Your task to perform on an android device: Clear all items from cart on newegg.com. Add "rayovac triple a" to the cart on newegg.com Image 0: 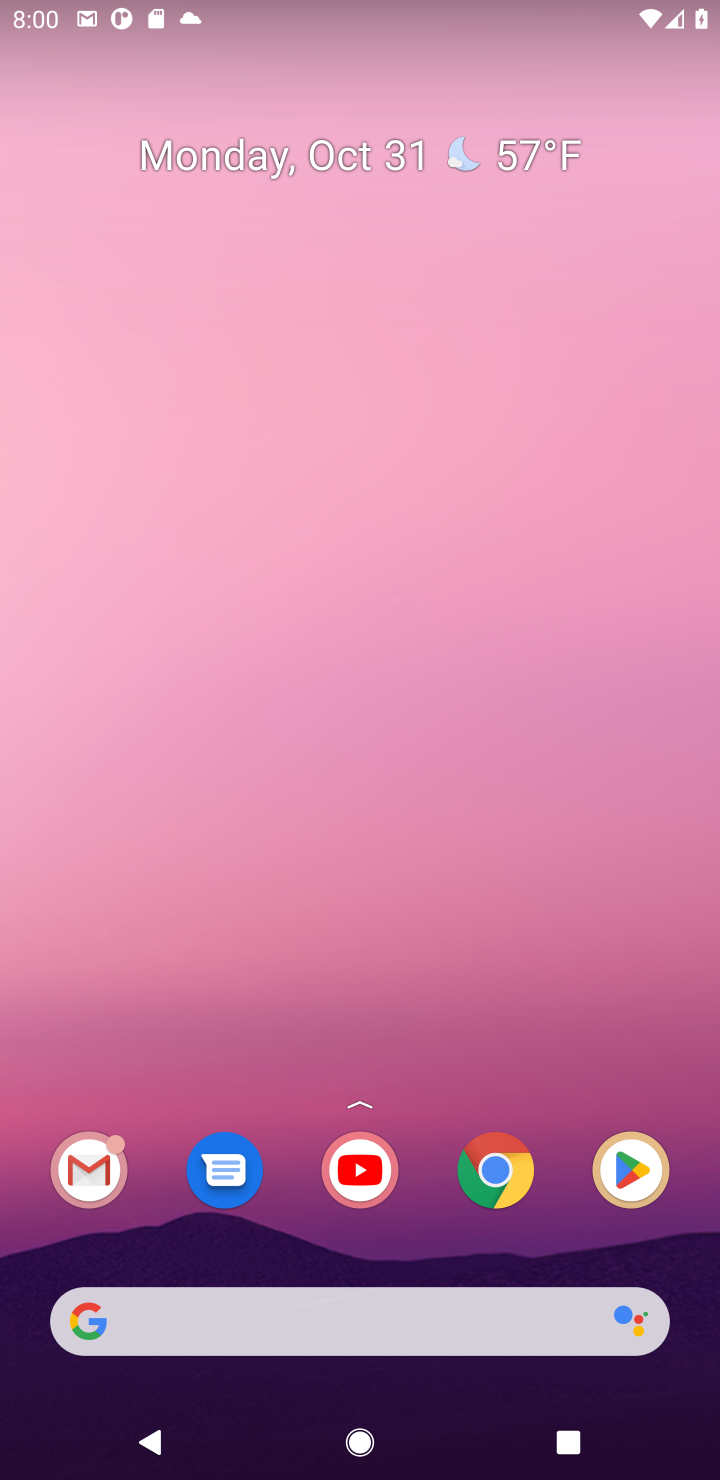
Step 0: click (518, 1166)
Your task to perform on an android device: Clear all items from cart on newegg.com. Add "rayovac triple a" to the cart on newegg.com Image 1: 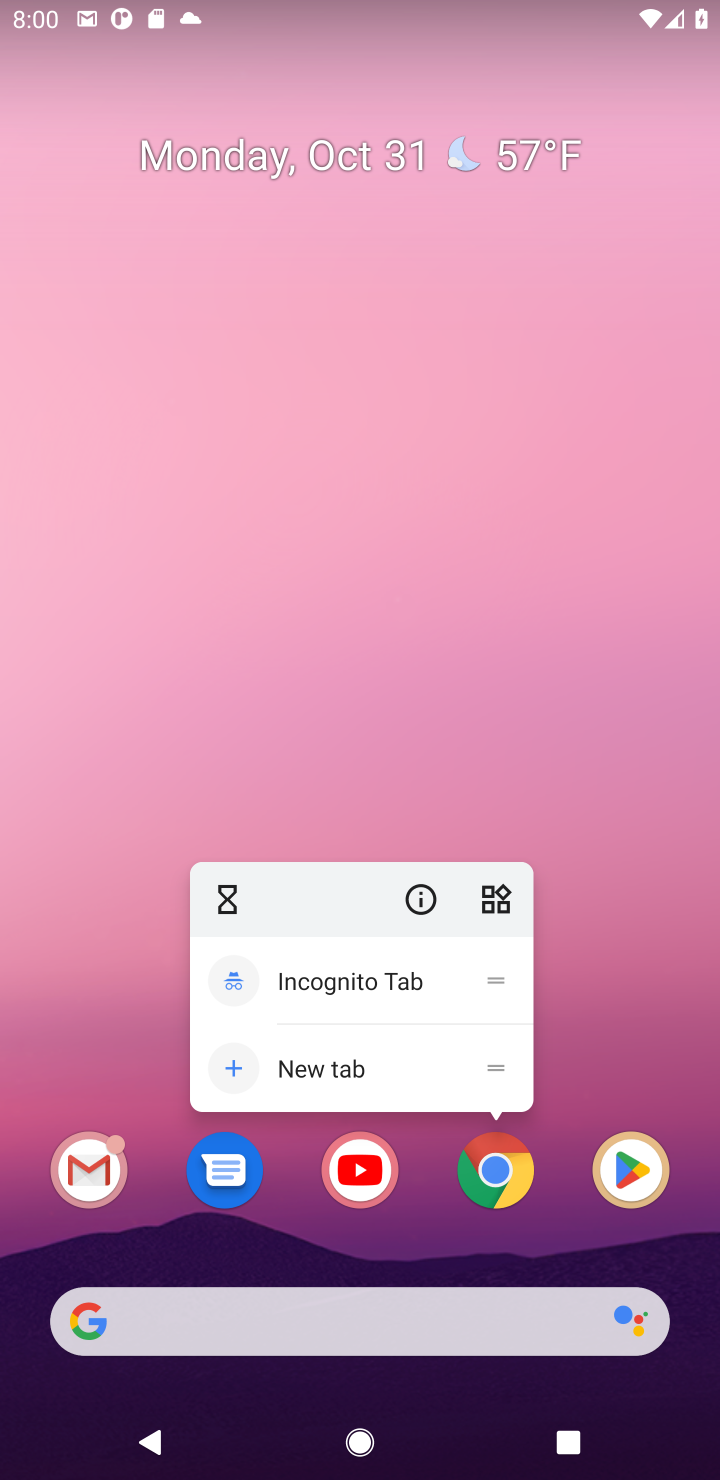
Step 1: click (496, 1176)
Your task to perform on an android device: Clear all items from cart on newegg.com. Add "rayovac triple a" to the cart on newegg.com Image 2: 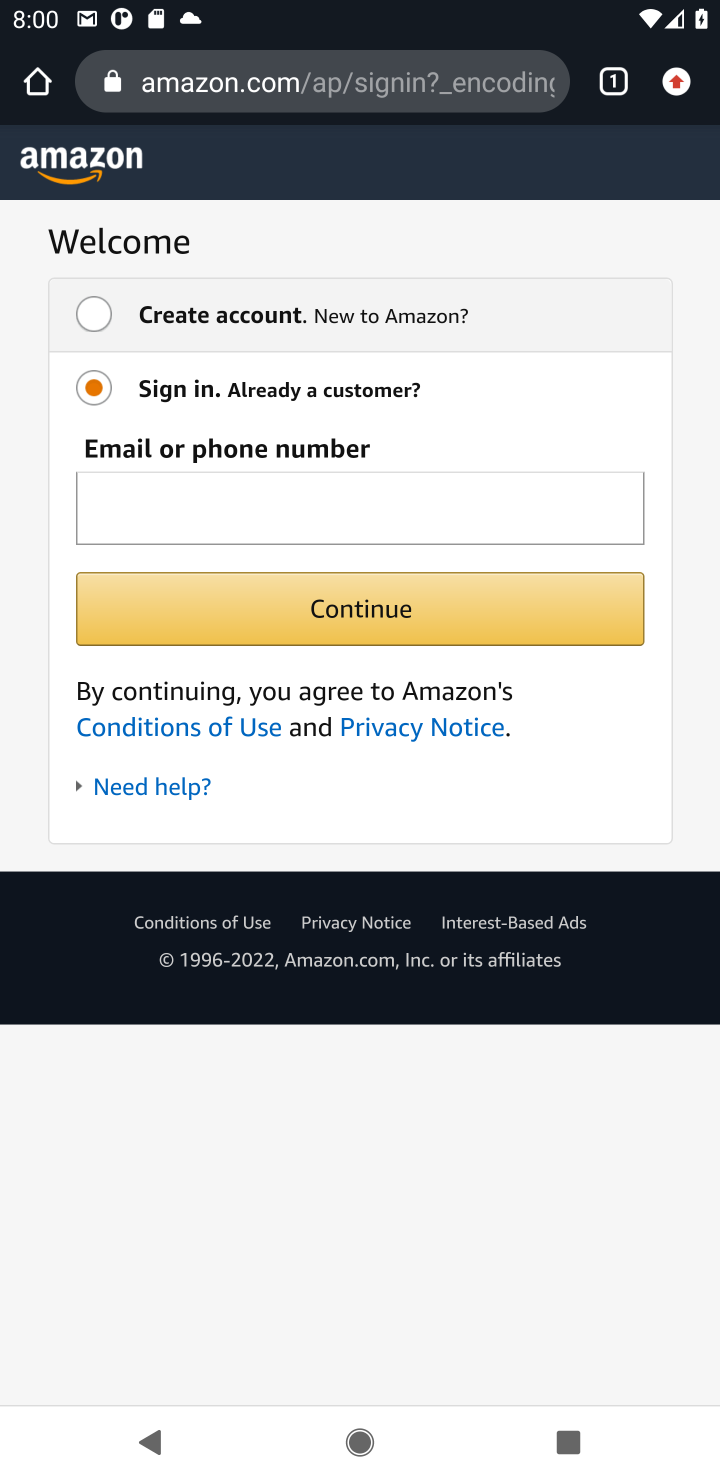
Step 2: click (322, 97)
Your task to perform on an android device: Clear all items from cart on newegg.com. Add "rayovac triple a" to the cart on newegg.com Image 3: 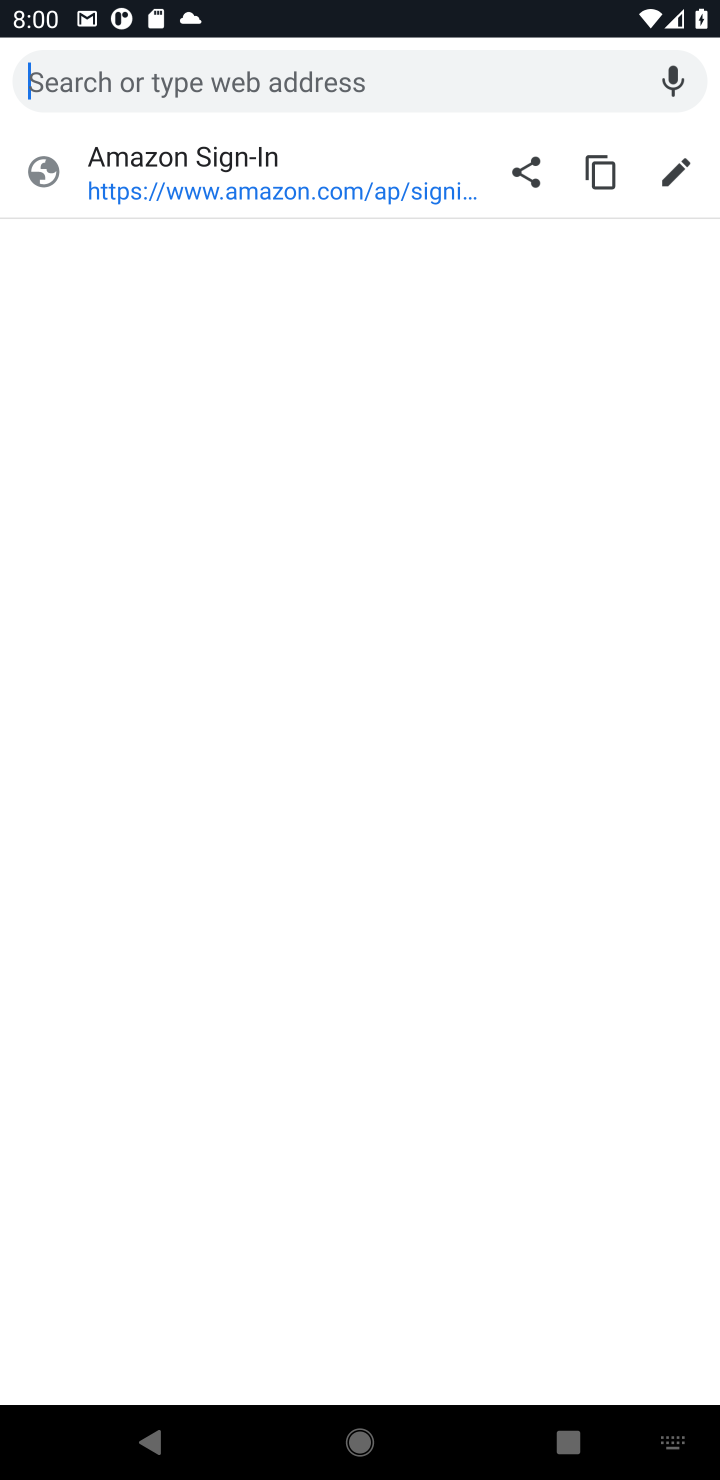
Step 3: type "newegg"
Your task to perform on an android device: Clear all items from cart on newegg.com. Add "rayovac triple a" to the cart on newegg.com Image 4: 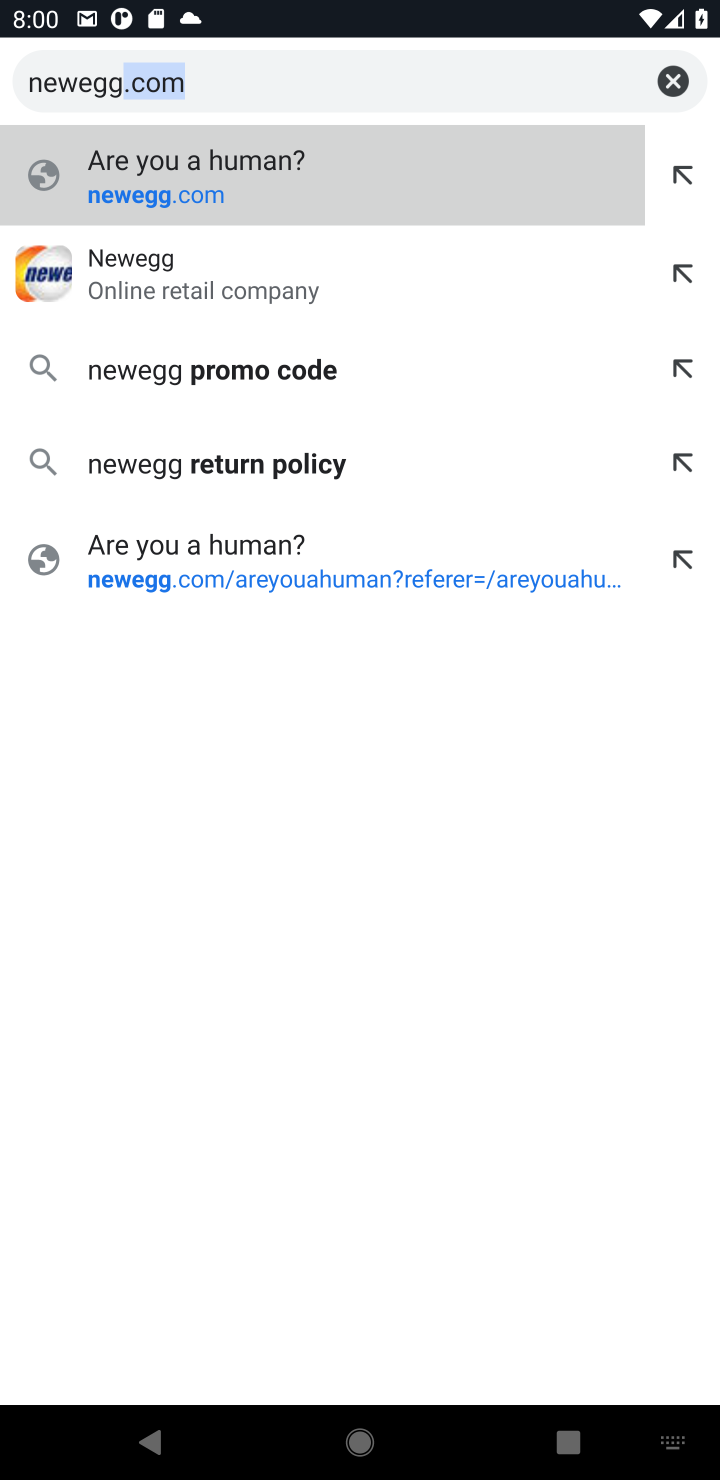
Step 4: click (209, 263)
Your task to perform on an android device: Clear all items from cart on newegg.com. Add "rayovac triple a" to the cart on newegg.com Image 5: 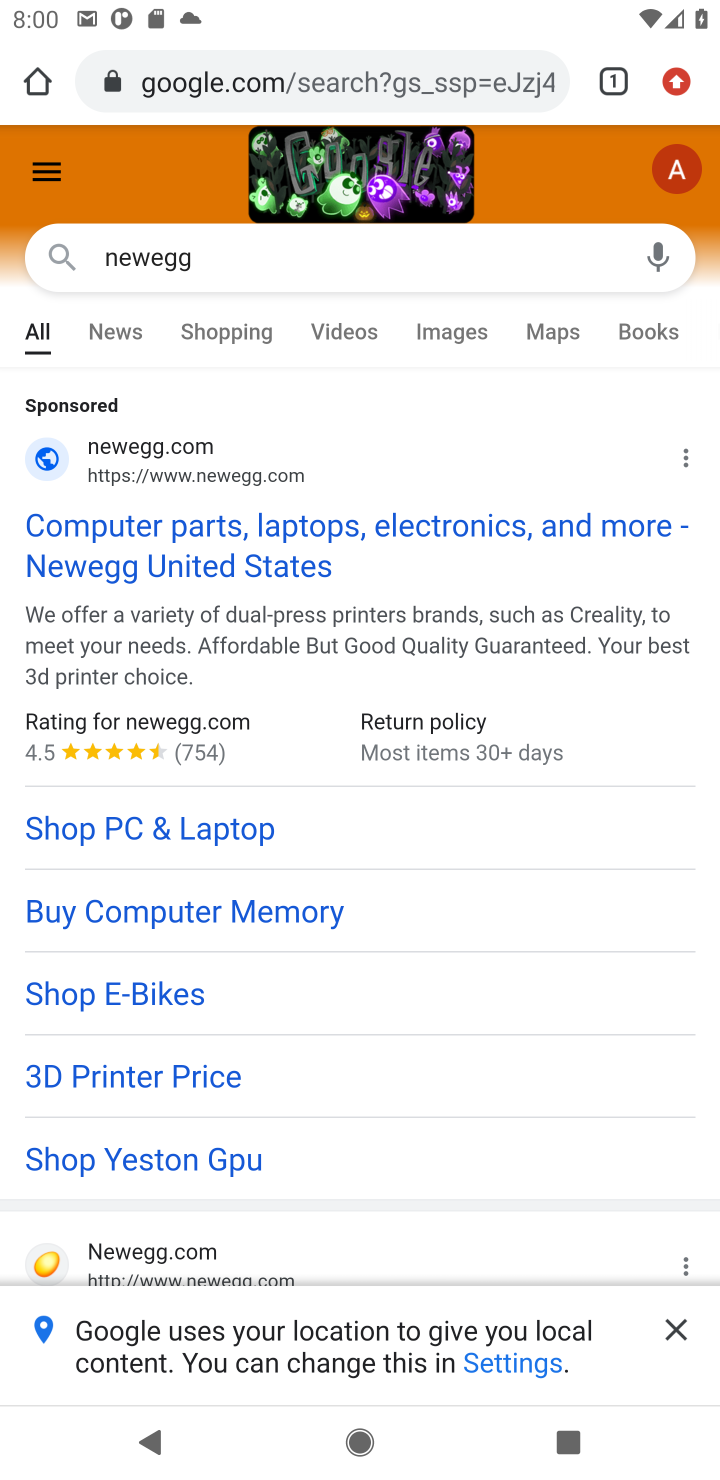
Step 5: click (181, 540)
Your task to perform on an android device: Clear all items from cart on newegg.com. Add "rayovac triple a" to the cart on newegg.com Image 6: 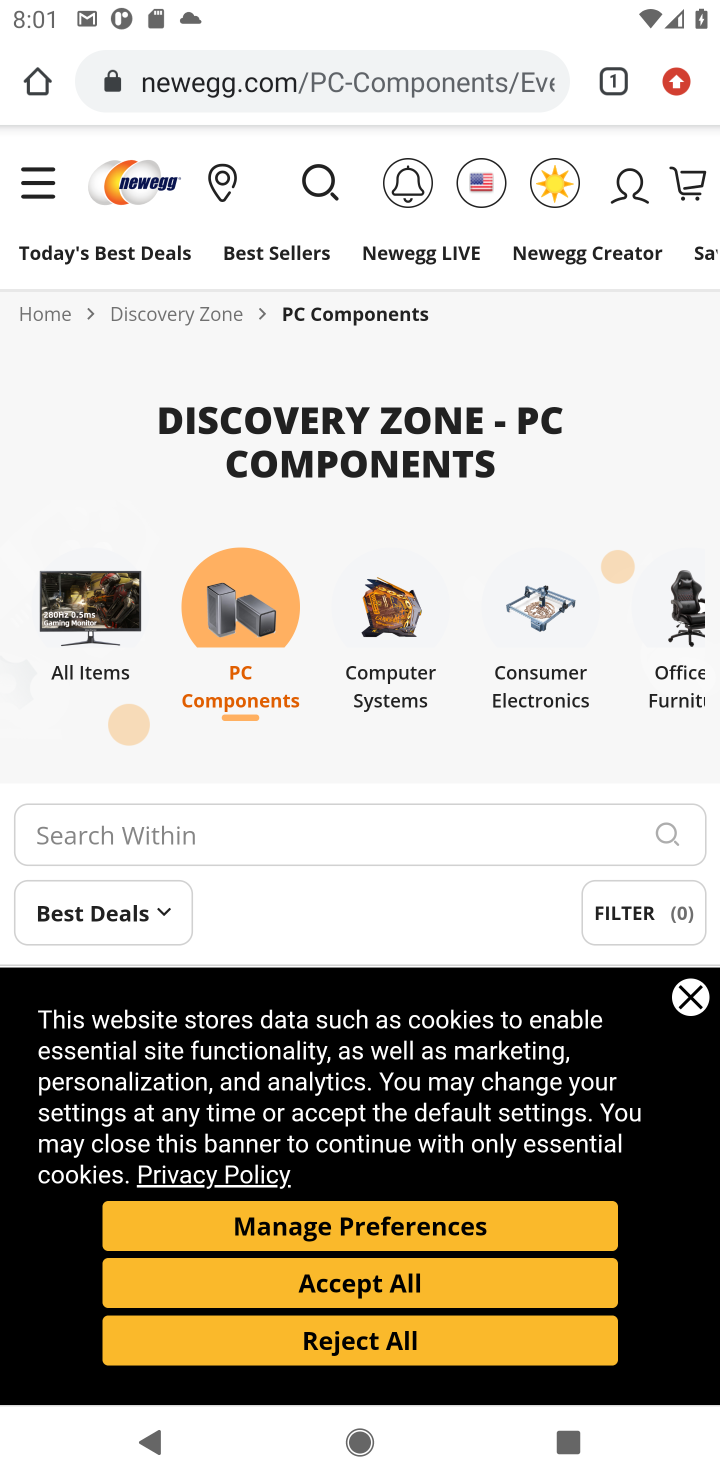
Step 6: click (695, 983)
Your task to perform on an android device: Clear all items from cart on newegg.com. Add "rayovac triple a" to the cart on newegg.com Image 7: 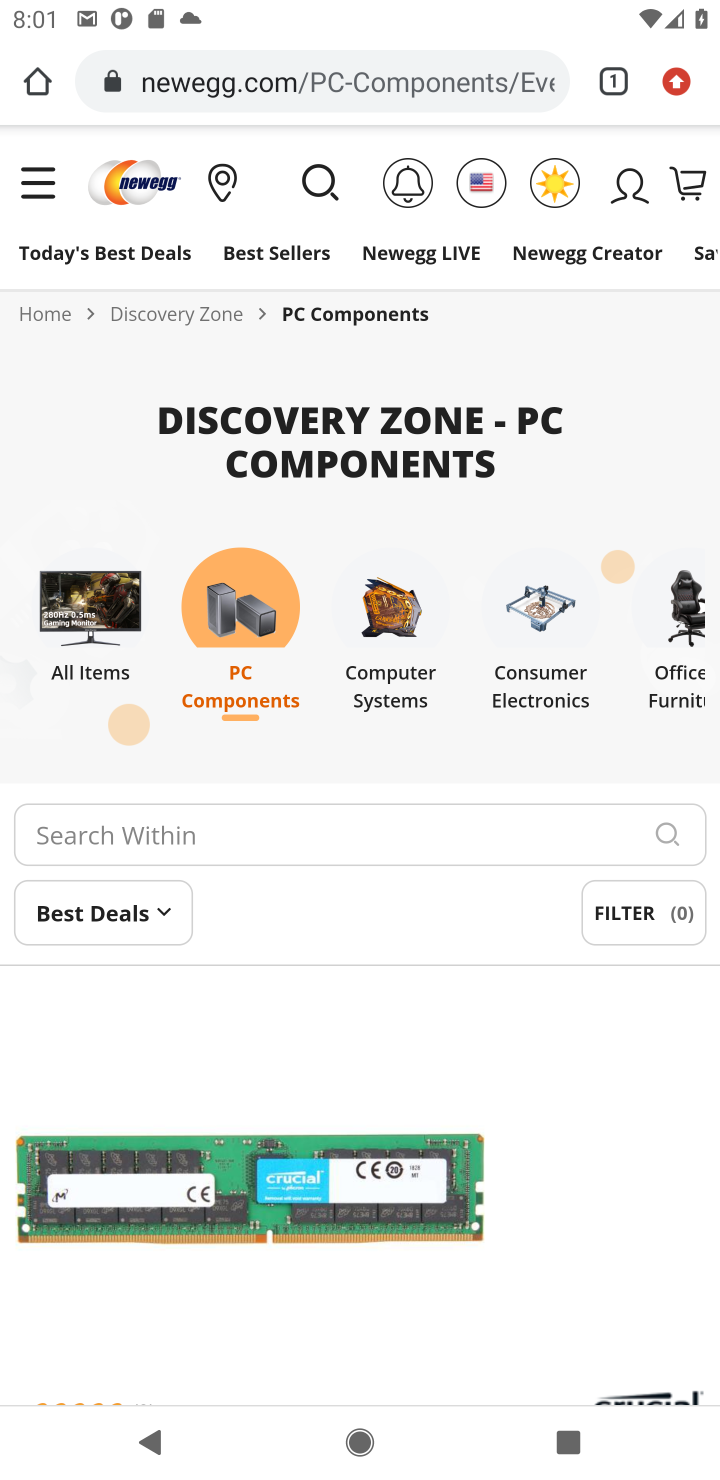
Step 7: click (692, 169)
Your task to perform on an android device: Clear all items from cart on newegg.com. Add "rayovac triple a" to the cart on newegg.com Image 8: 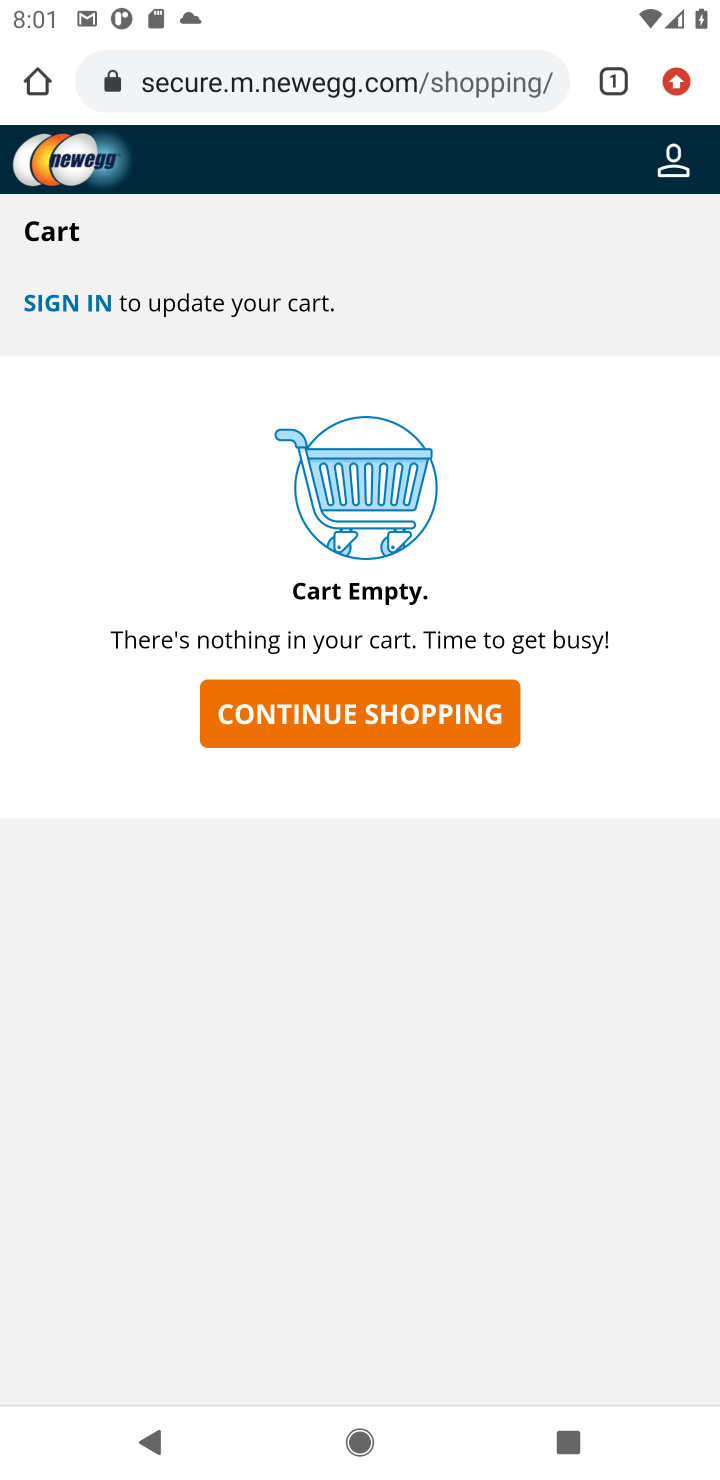
Step 8: press back button
Your task to perform on an android device: Clear all items from cart on newegg.com. Add "rayovac triple a" to the cart on newegg.com Image 9: 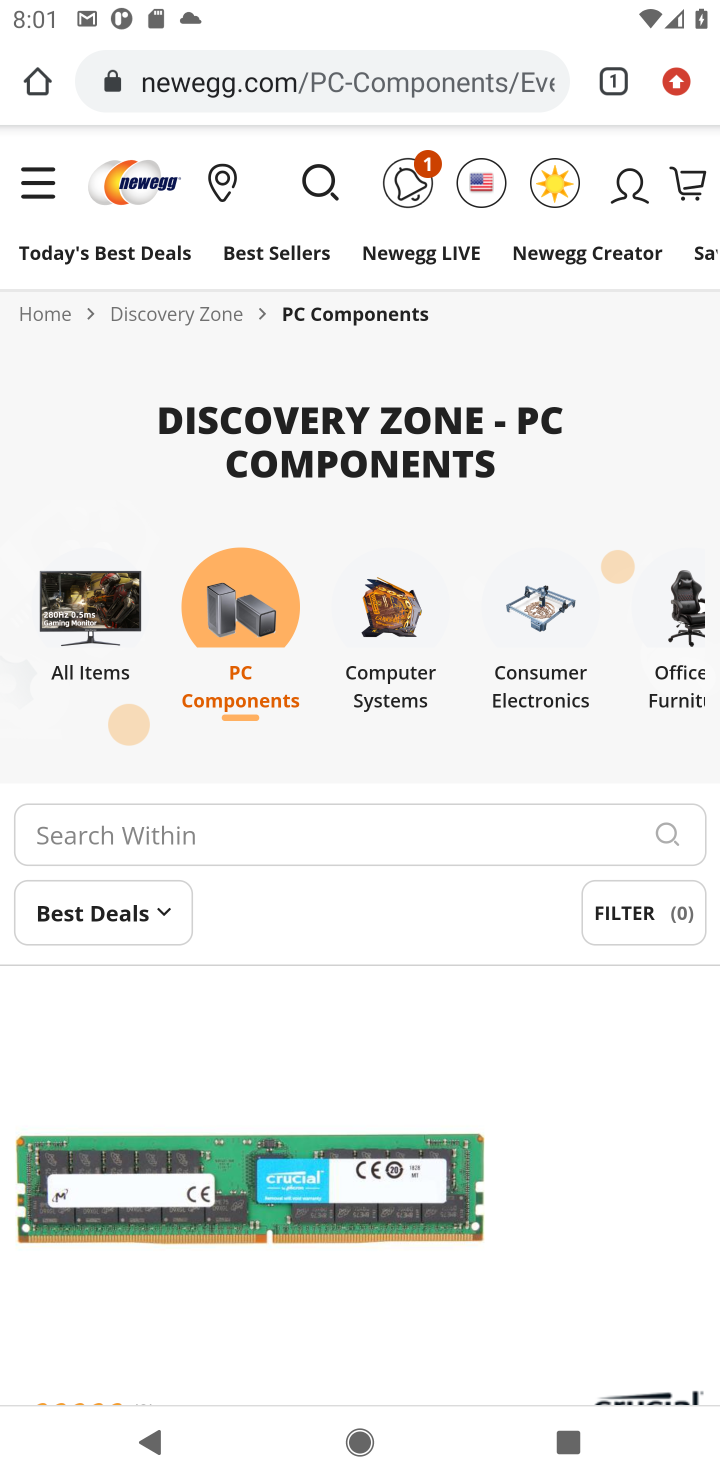
Step 9: click (322, 185)
Your task to perform on an android device: Clear all items from cart on newegg.com. Add "rayovac triple a" to the cart on newegg.com Image 10: 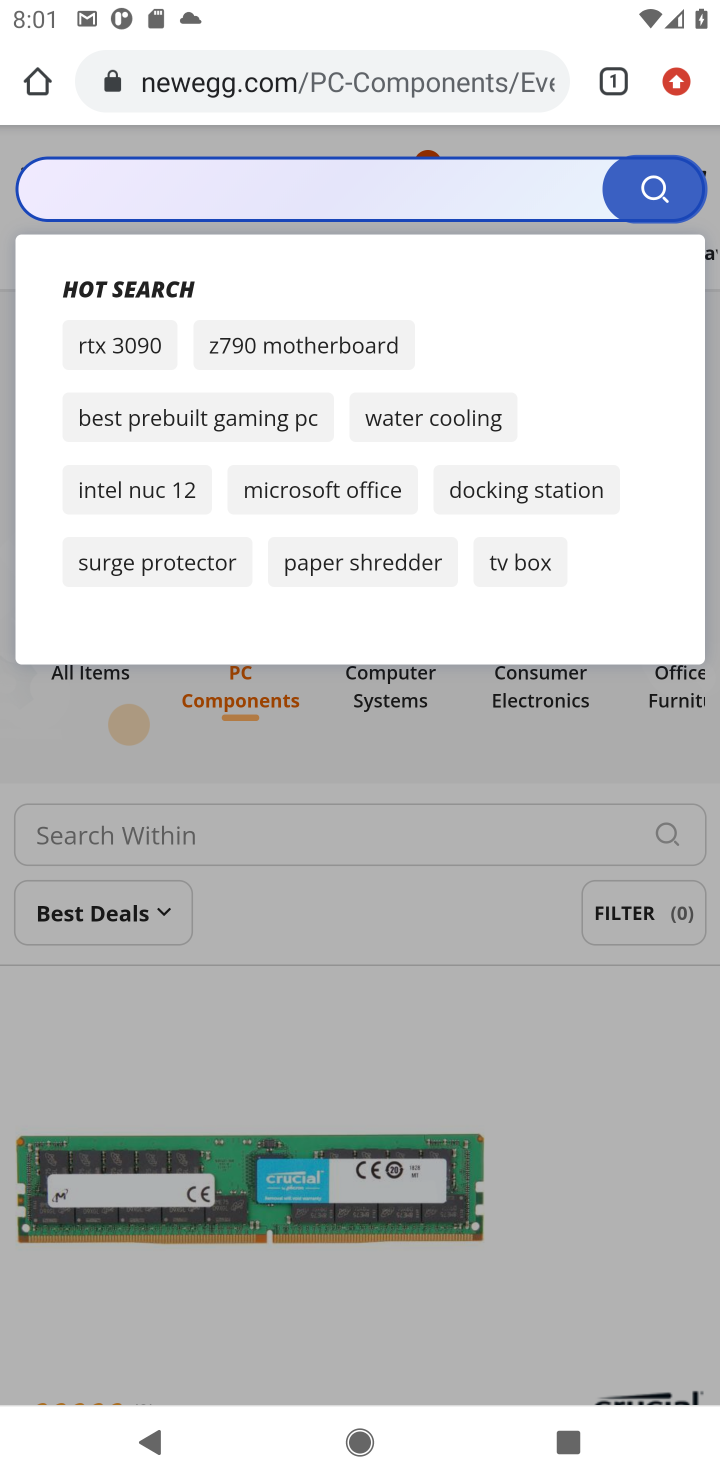
Step 10: click (436, 165)
Your task to perform on an android device: Clear all items from cart on newegg.com. Add "rayovac triple a" to the cart on newegg.com Image 11: 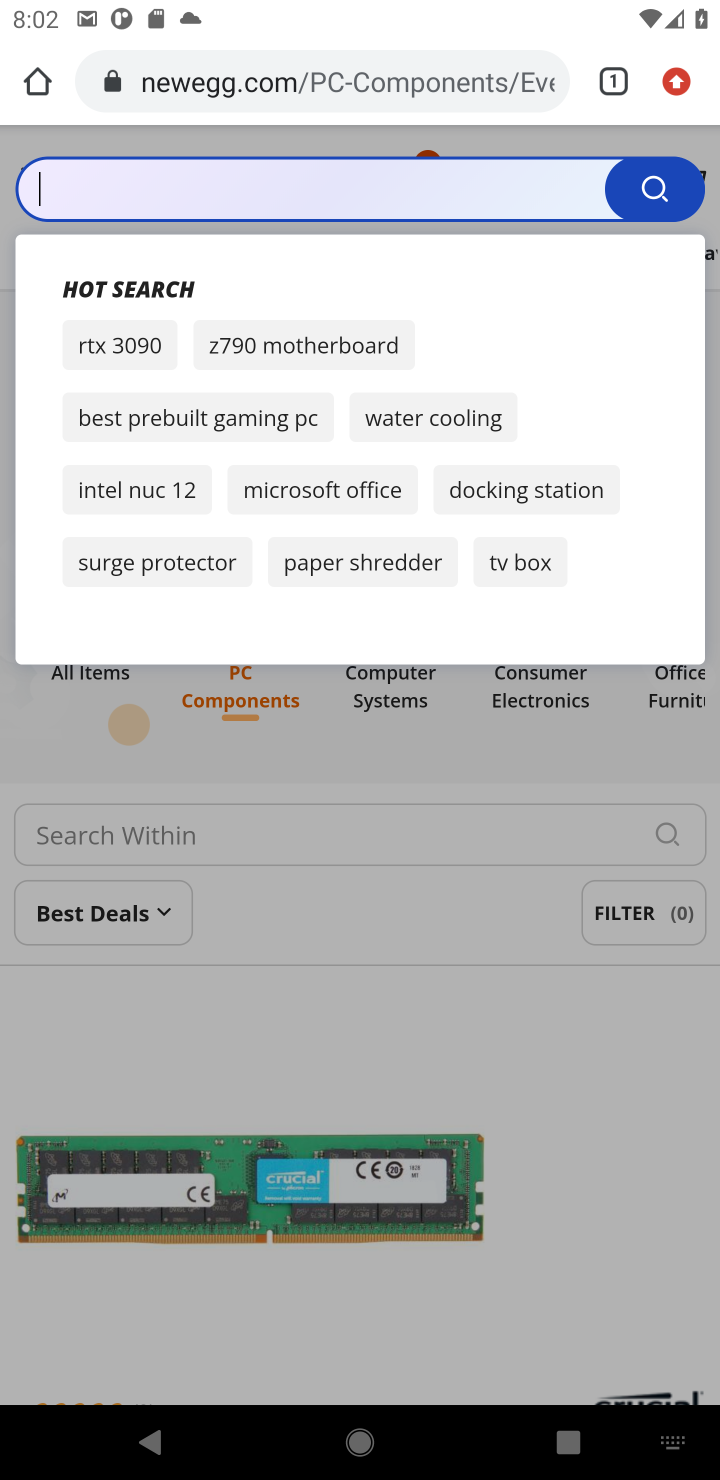
Step 11: click (440, 185)
Your task to perform on an android device: Clear all items from cart on newegg.com. Add "rayovac triple a" to the cart on newegg.com Image 12: 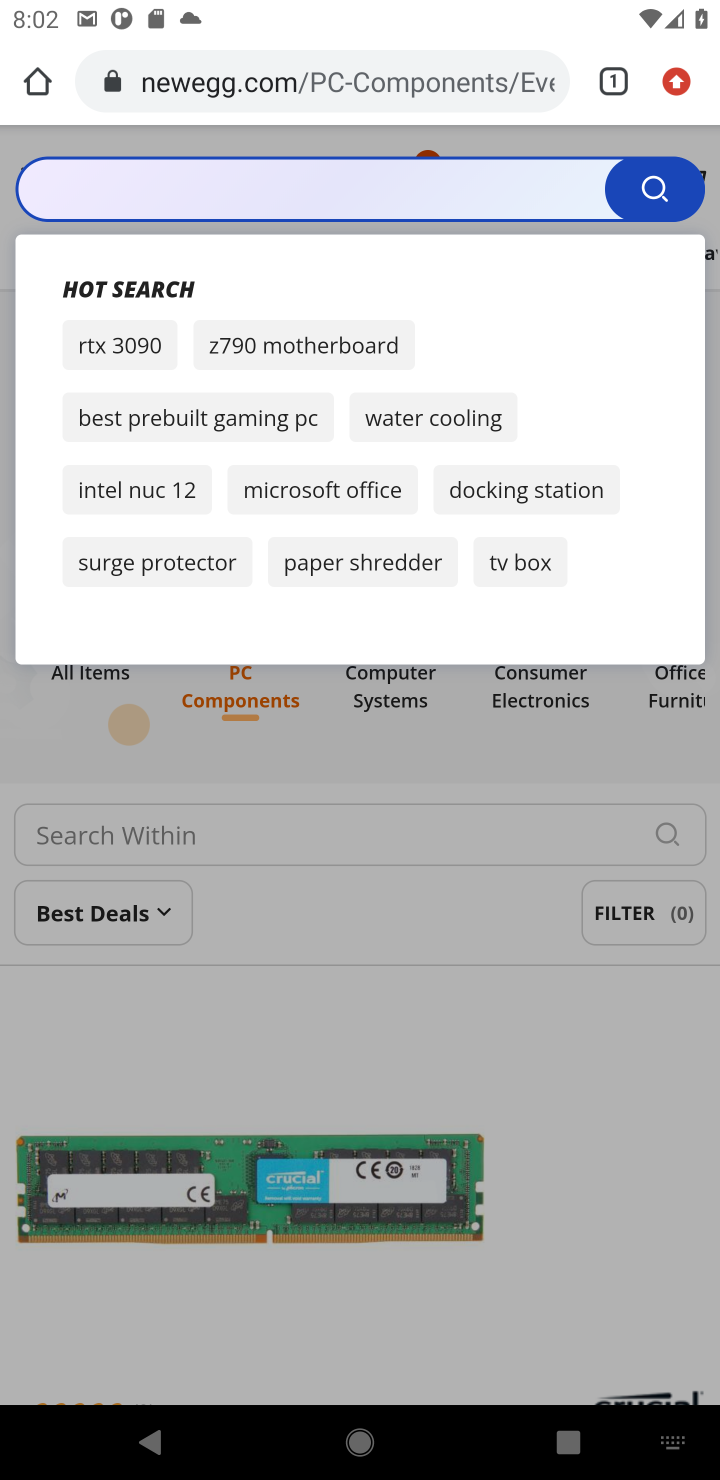
Step 12: type "rayovac triple a"
Your task to perform on an android device: Clear all items from cart on newegg.com. Add "rayovac triple a" to the cart on newegg.com Image 13: 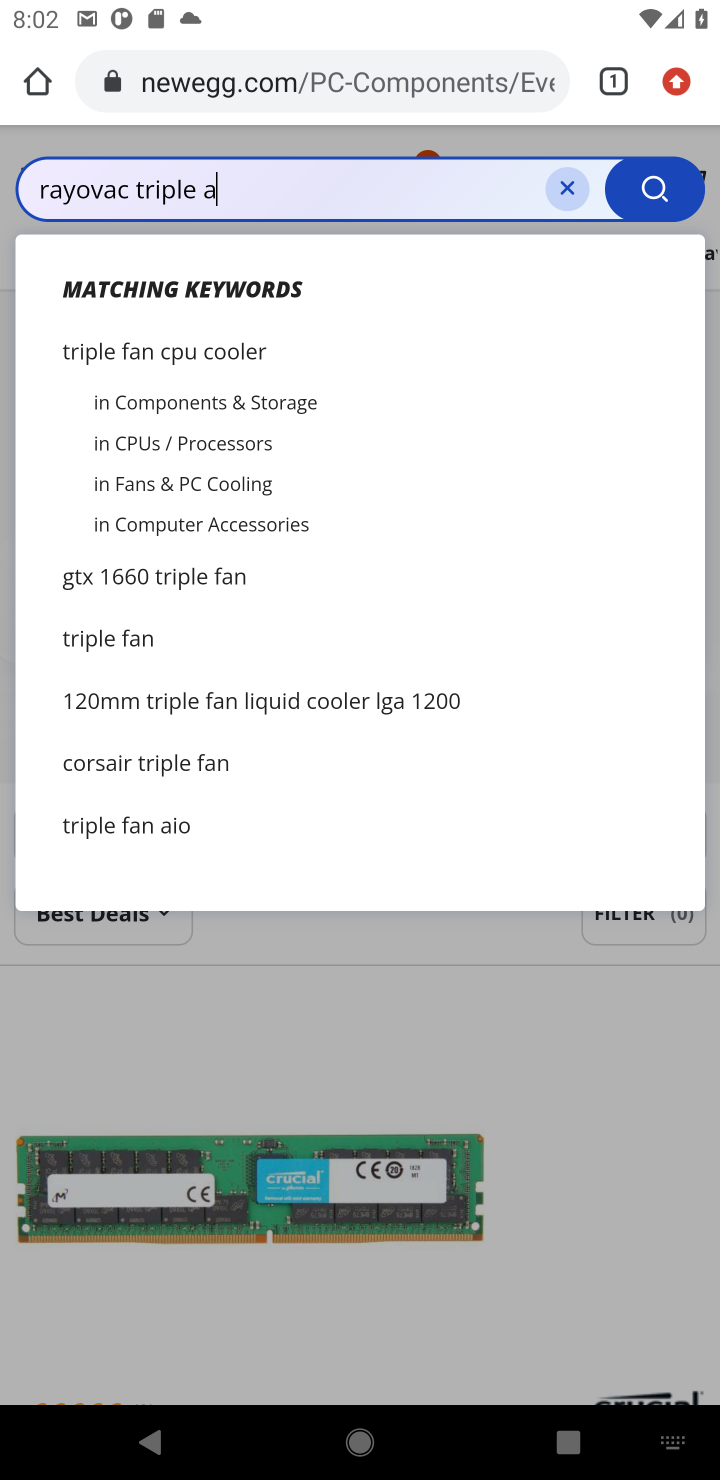
Step 13: click (676, 188)
Your task to perform on an android device: Clear all items from cart on newegg.com. Add "rayovac triple a" to the cart on newegg.com Image 14: 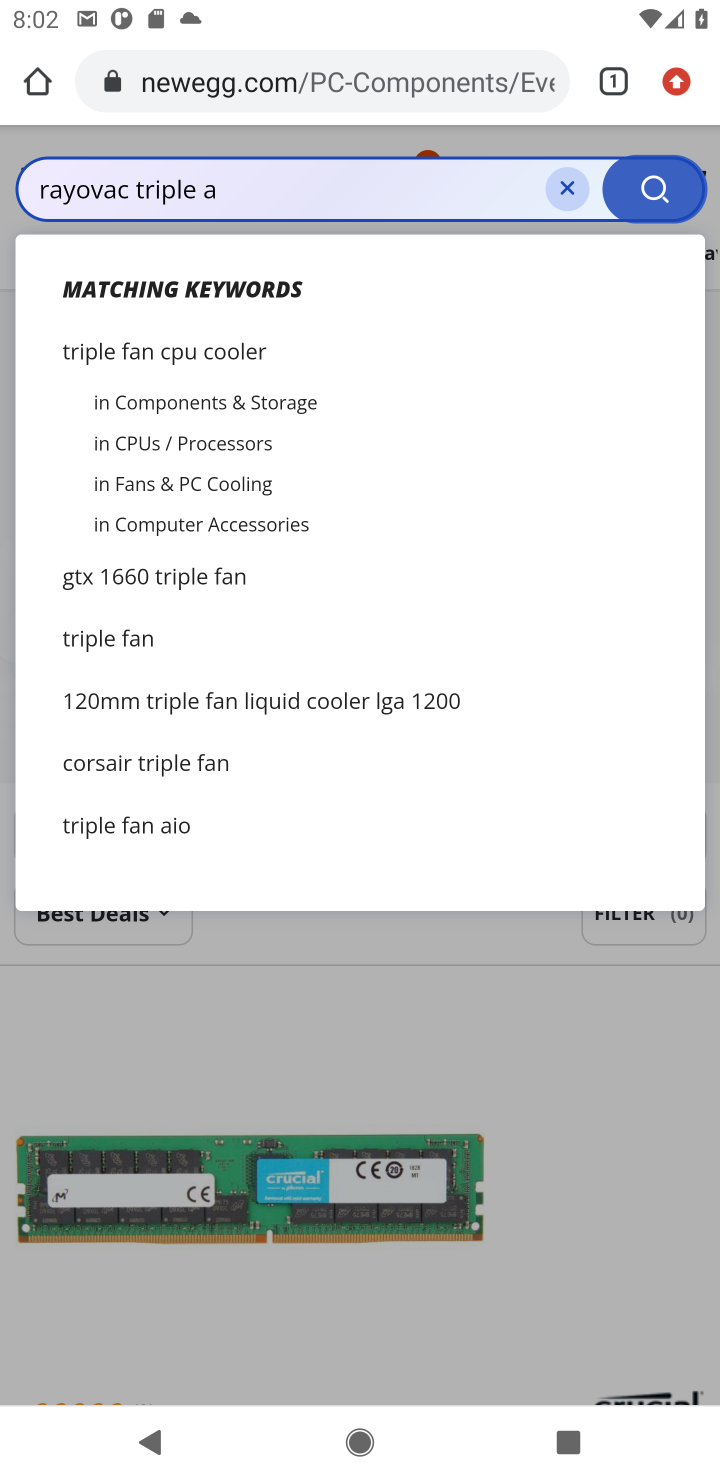
Step 14: click (659, 192)
Your task to perform on an android device: Clear all items from cart on newegg.com. Add "rayovac triple a" to the cart on newegg.com Image 15: 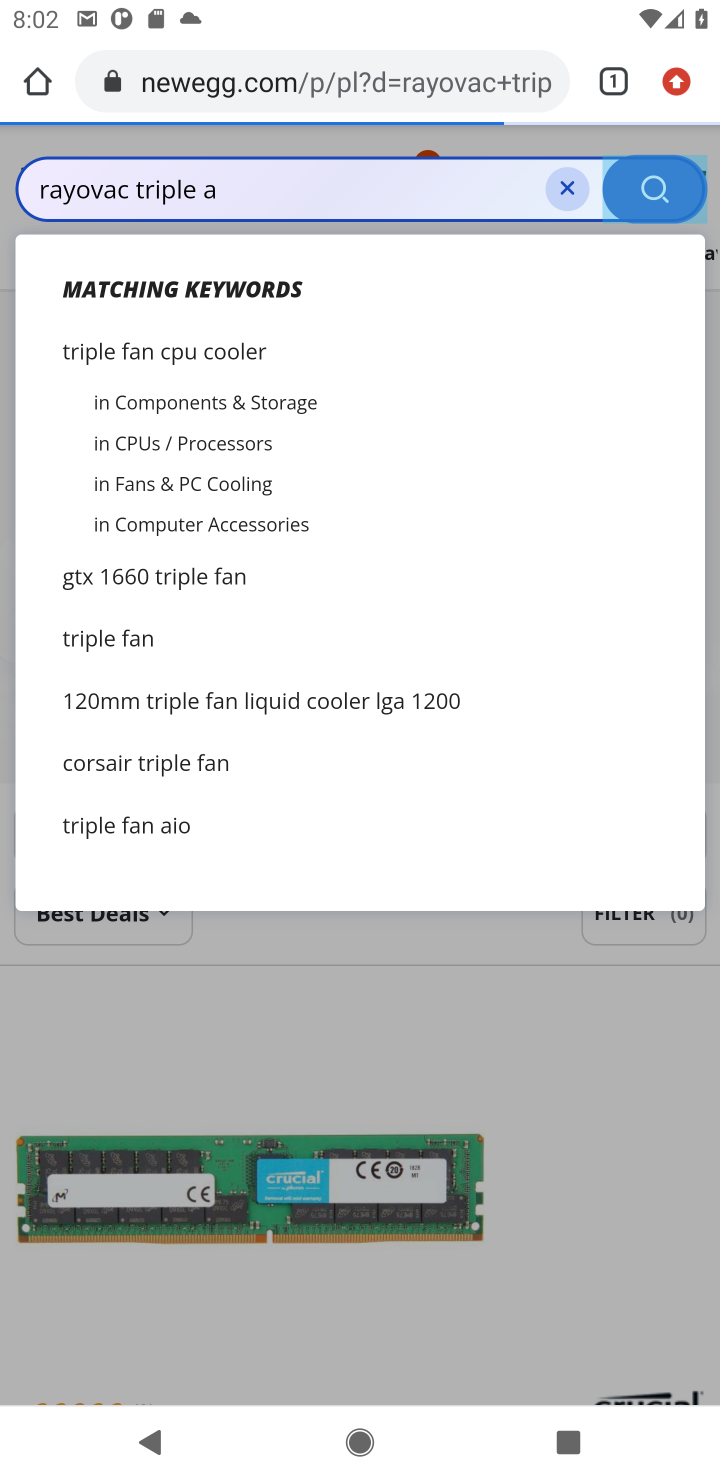
Step 15: click (659, 192)
Your task to perform on an android device: Clear all items from cart on newegg.com. Add "rayovac triple a" to the cart on newegg.com Image 16: 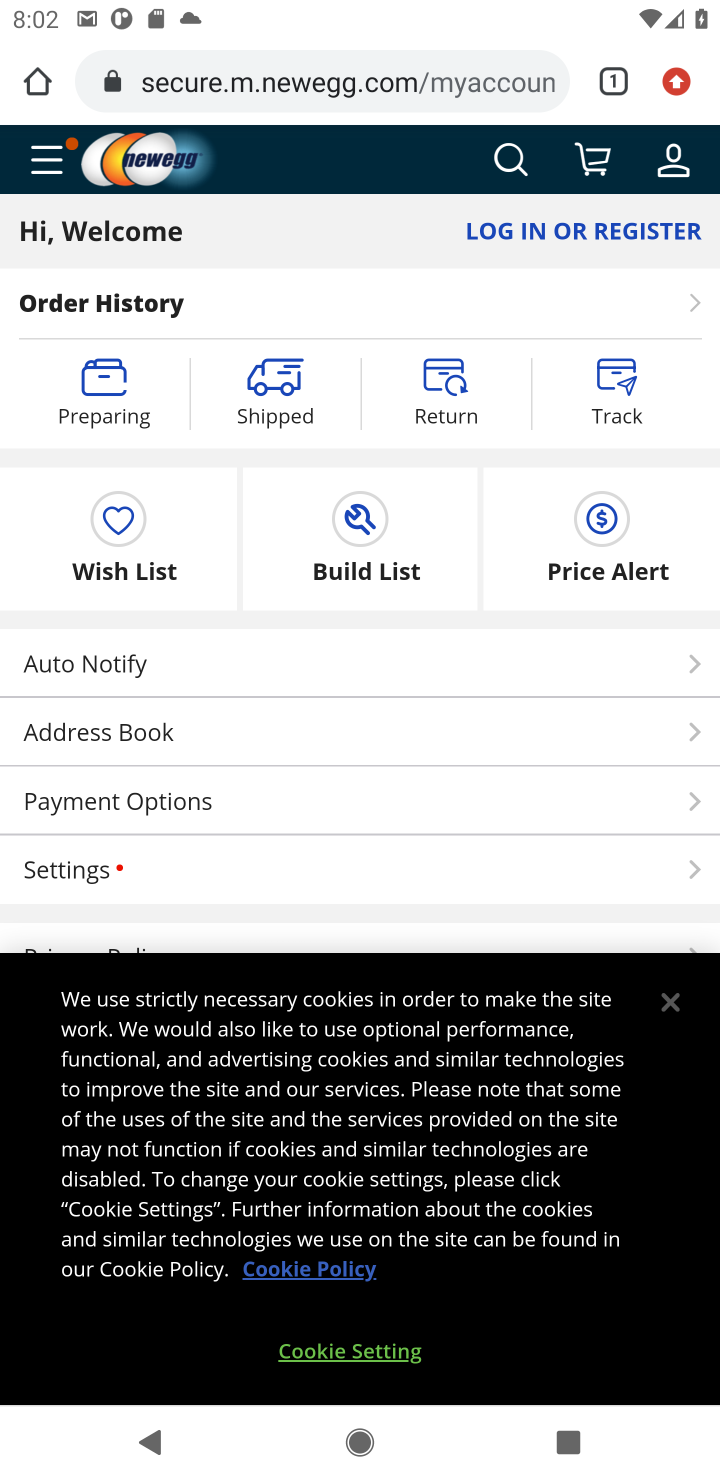
Step 16: press back button
Your task to perform on an android device: Clear all items from cart on newegg.com. Add "rayovac triple a" to the cart on newegg.com Image 17: 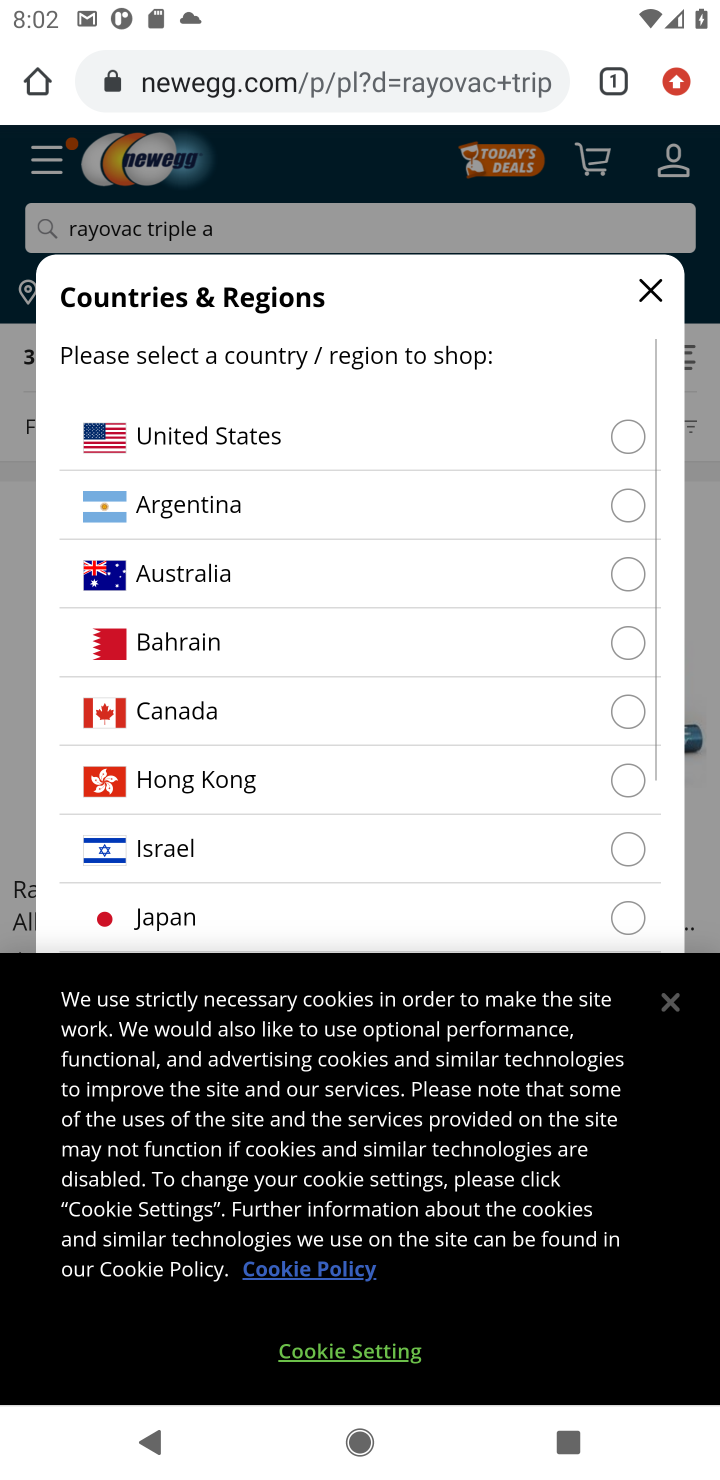
Step 17: click (134, 705)
Your task to perform on an android device: Clear all items from cart on newegg.com. Add "rayovac triple a" to the cart on newegg.com Image 18: 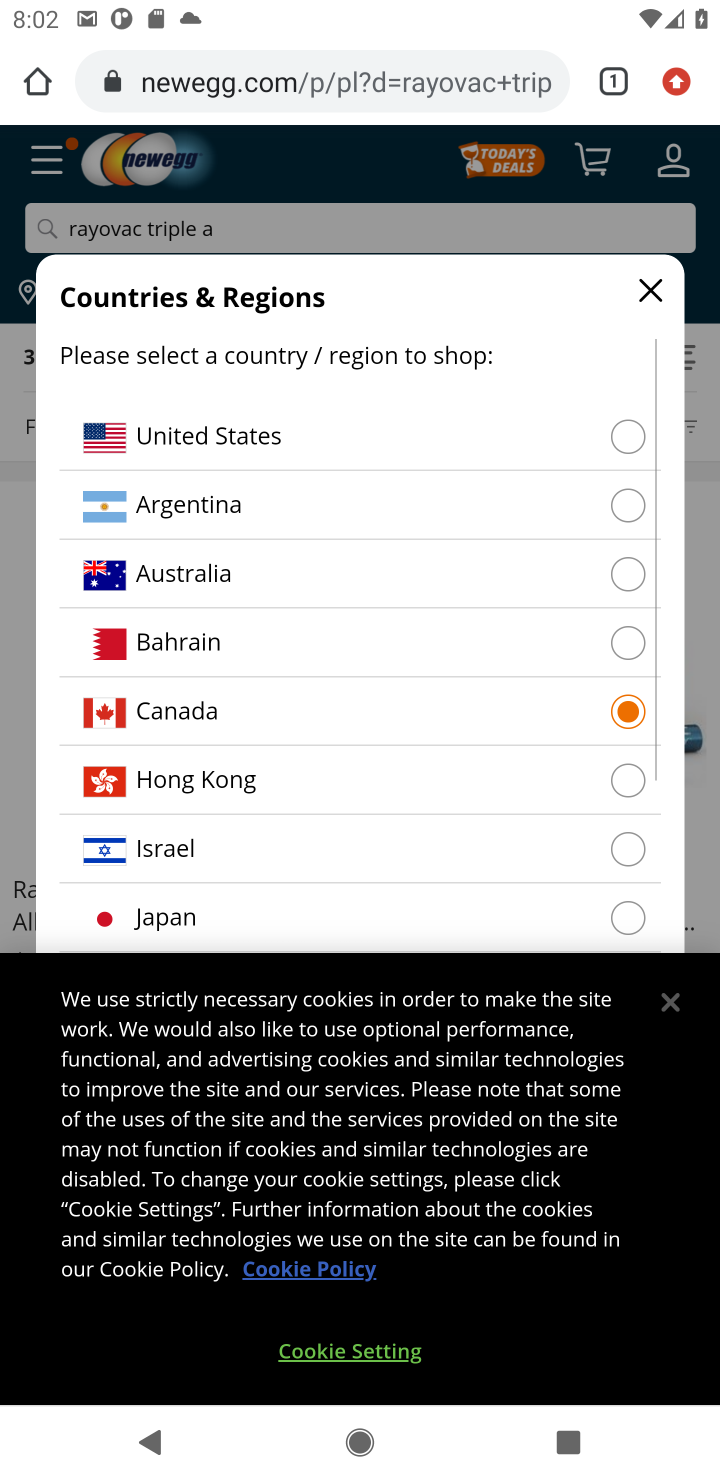
Step 18: click (622, 442)
Your task to perform on an android device: Clear all items from cart on newegg.com. Add "rayovac triple a" to the cart on newegg.com Image 19: 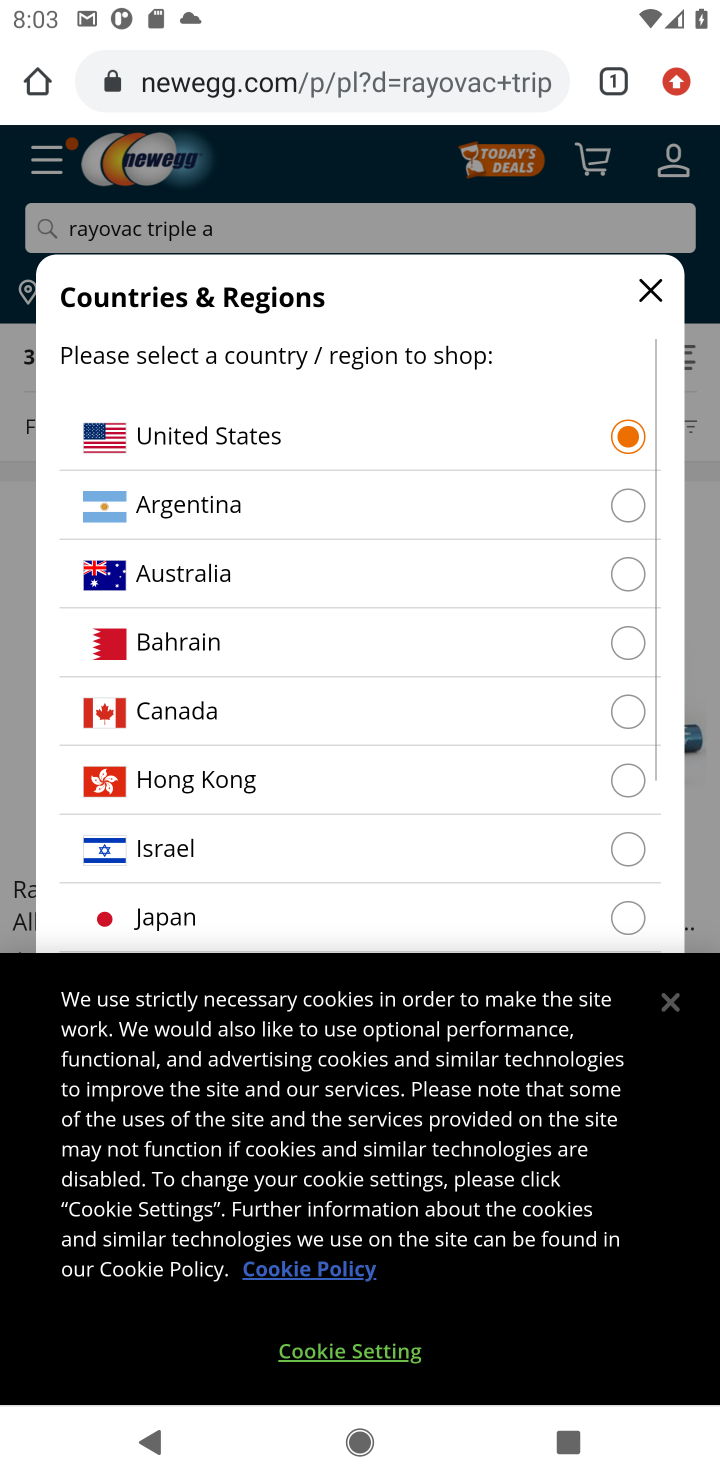
Step 19: click (667, 1004)
Your task to perform on an android device: Clear all items from cart on newegg.com. Add "rayovac triple a" to the cart on newegg.com Image 20: 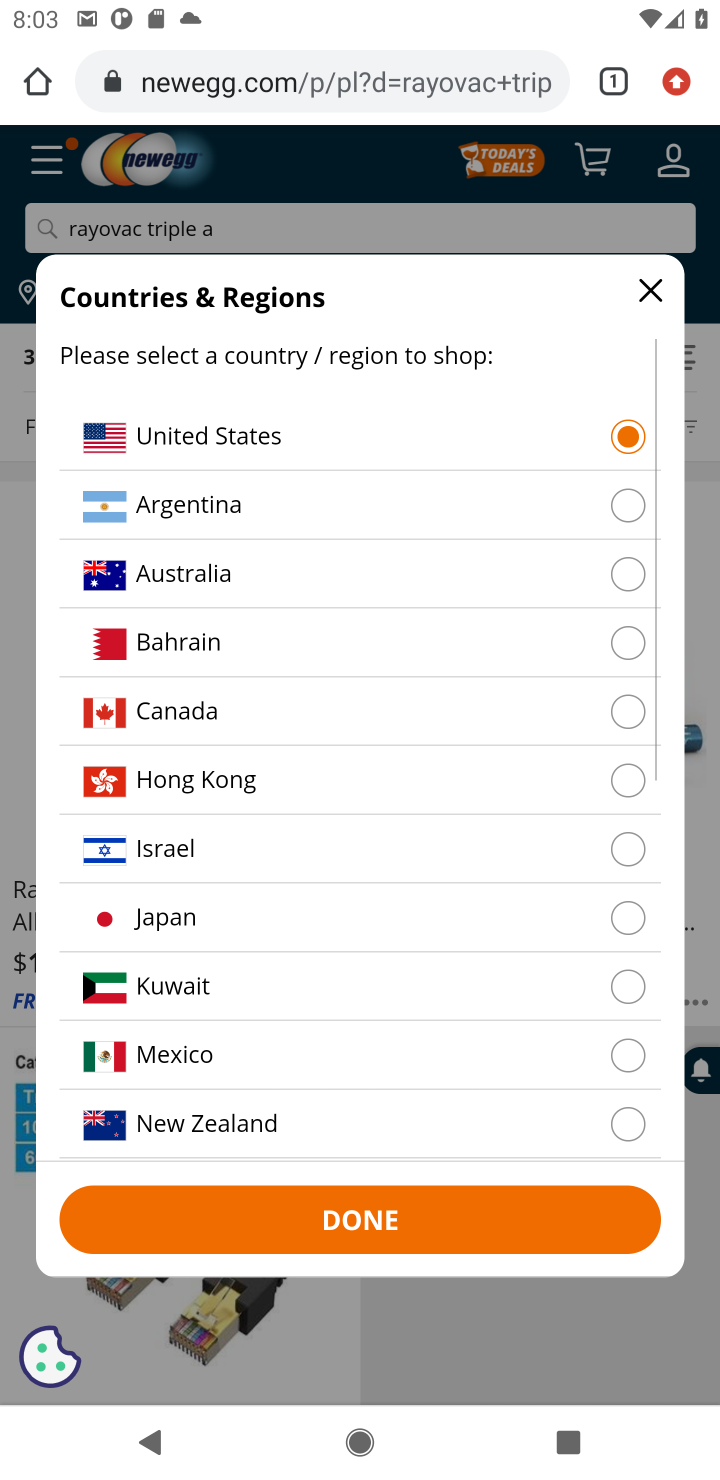
Step 20: click (284, 1233)
Your task to perform on an android device: Clear all items from cart on newegg.com. Add "rayovac triple a" to the cart on newegg.com Image 21: 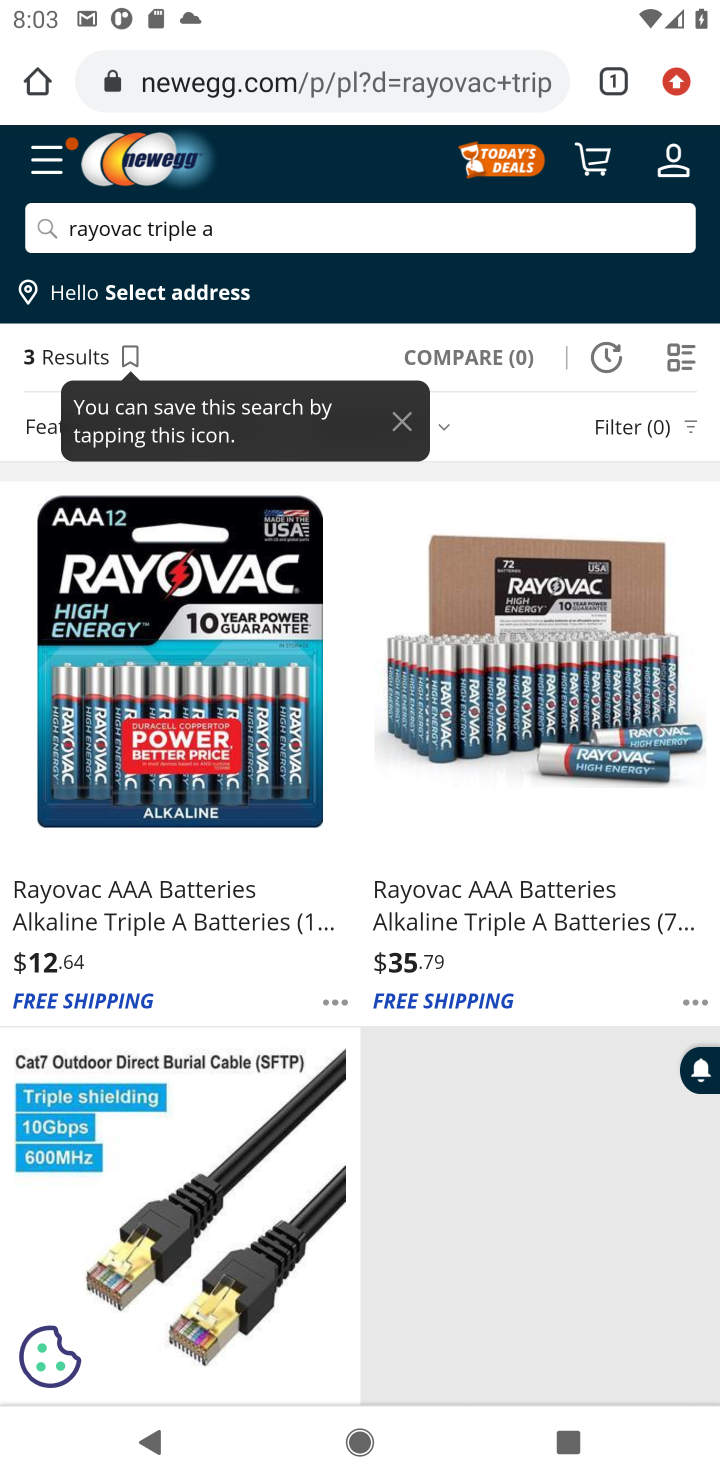
Step 21: click (177, 786)
Your task to perform on an android device: Clear all items from cart on newegg.com. Add "rayovac triple a" to the cart on newegg.com Image 22: 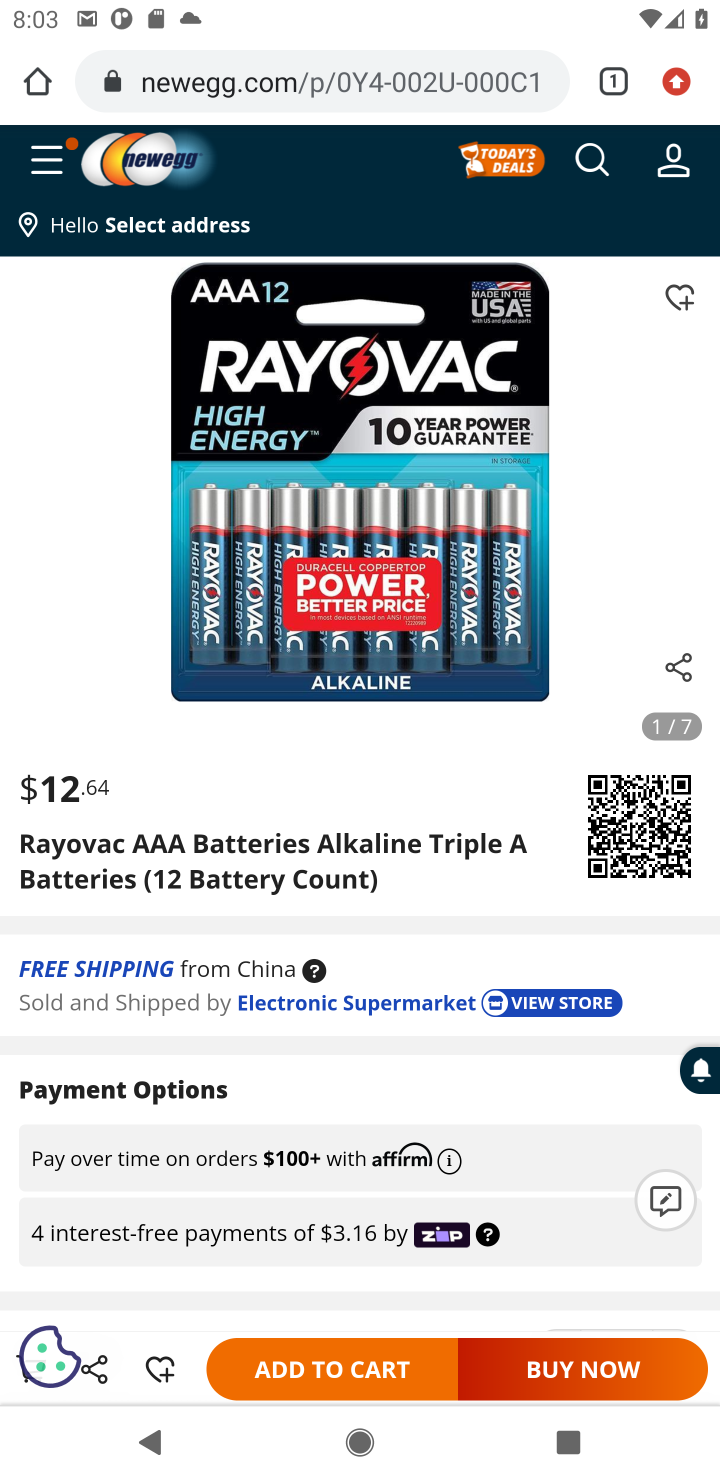
Step 22: click (283, 1375)
Your task to perform on an android device: Clear all items from cart on newegg.com. Add "rayovac triple a" to the cart on newegg.com Image 23: 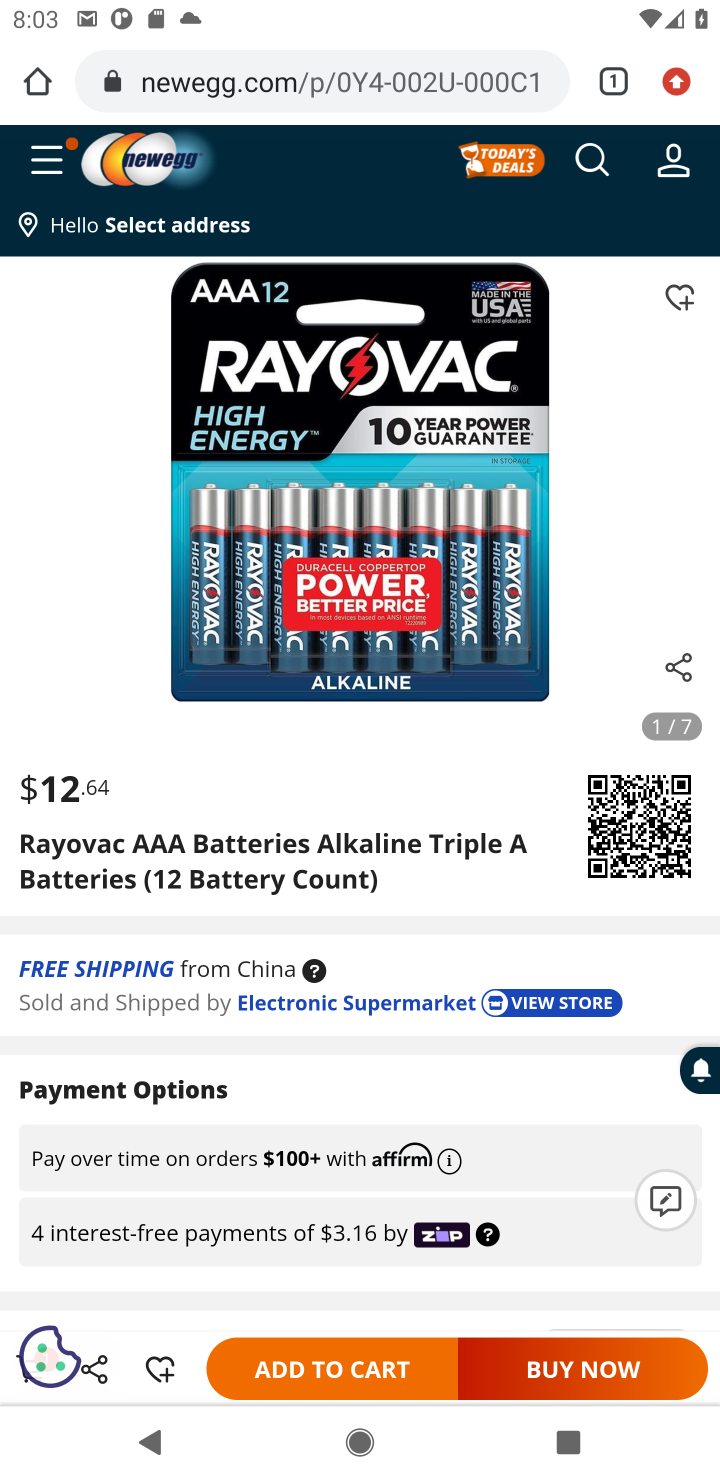
Step 23: click (283, 1375)
Your task to perform on an android device: Clear all items from cart on newegg.com. Add "rayovac triple a" to the cart on newegg.com Image 24: 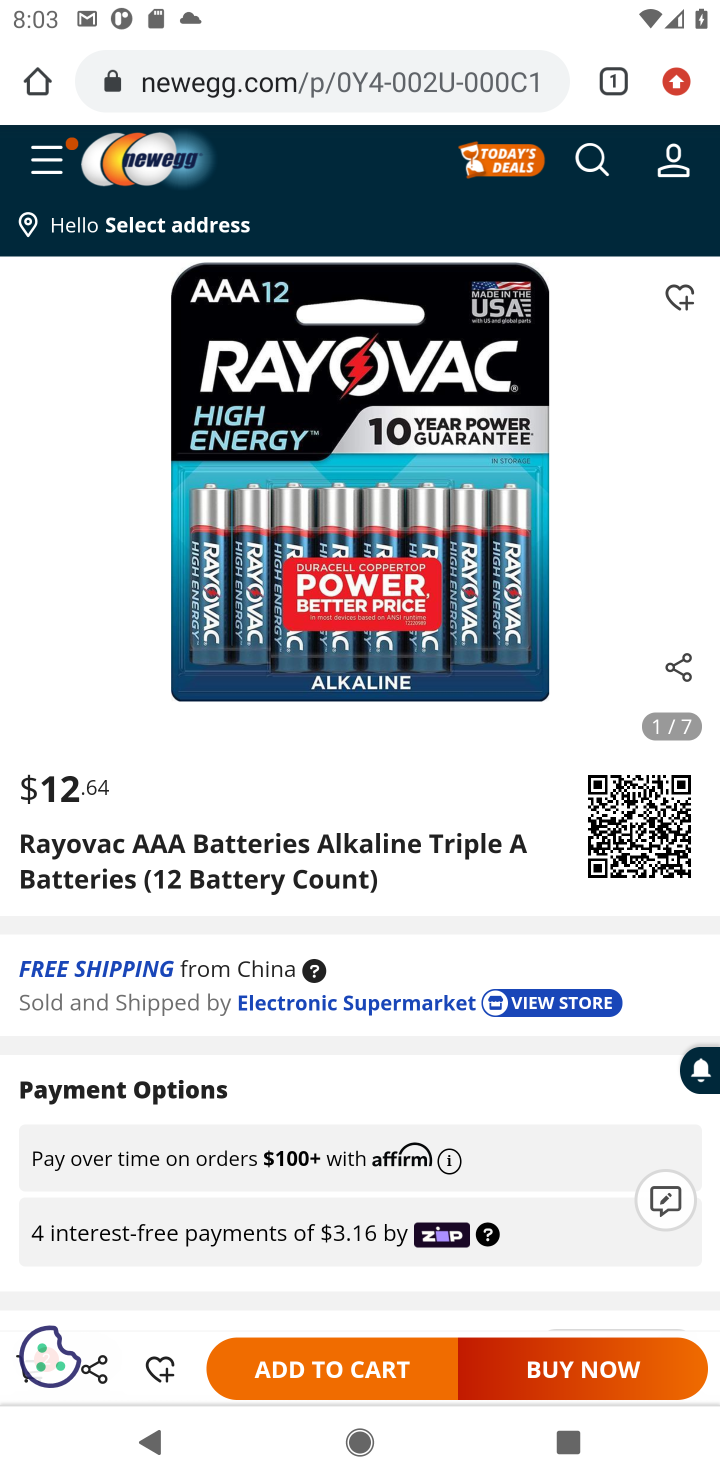
Step 24: task complete